Your task to perform on an android device: Search for a sofa on article.com Image 0: 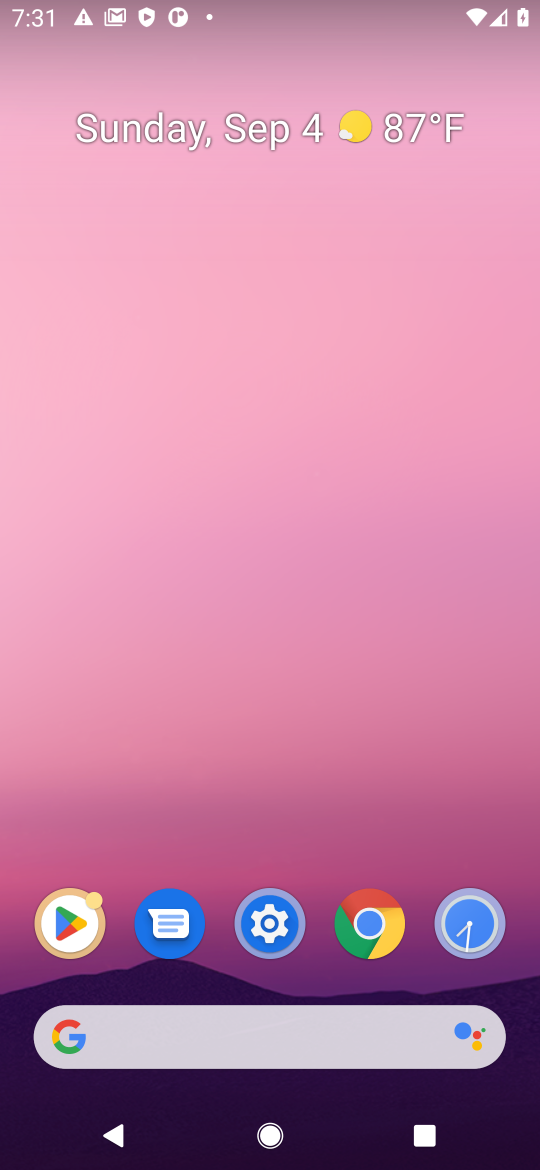
Step 0: press home button
Your task to perform on an android device: Search for a sofa on article.com Image 1: 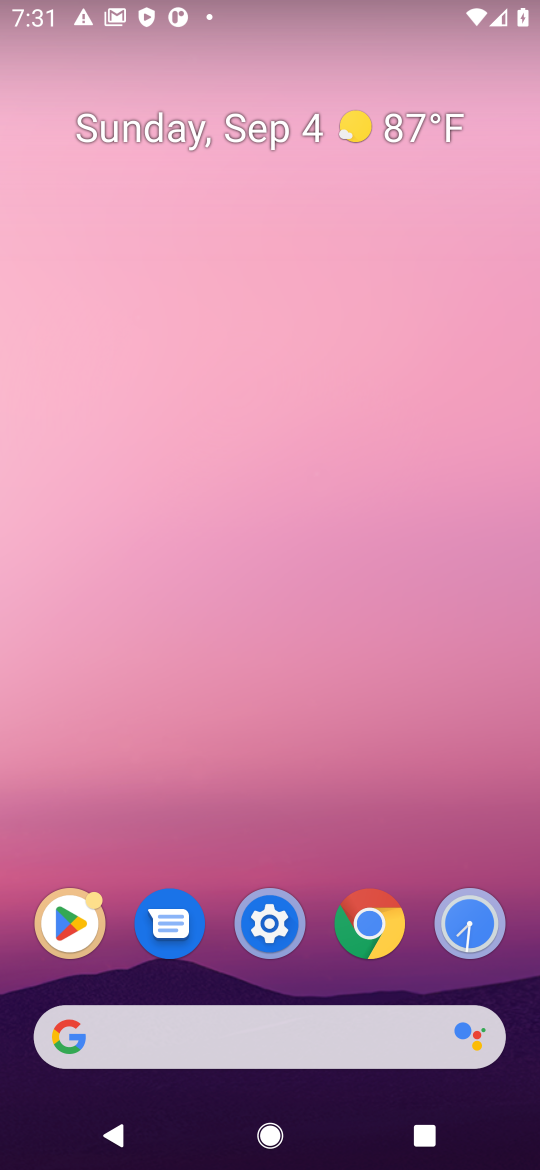
Step 1: click (351, 1015)
Your task to perform on an android device: Search for a sofa on article.com Image 2: 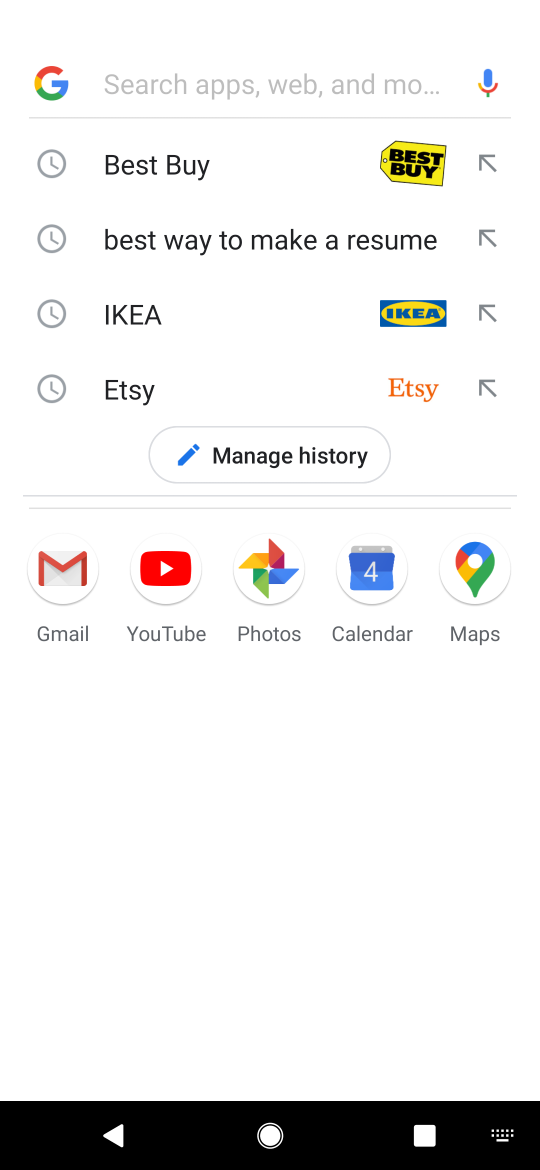
Step 2: press enter
Your task to perform on an android device: Search for a sofa on article.com Image 3: 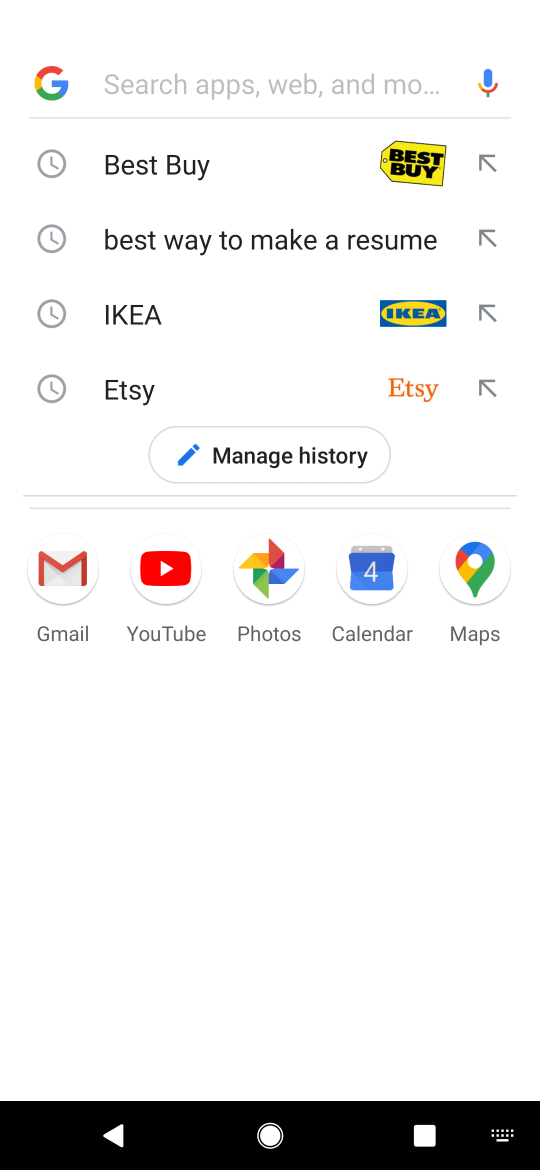
Step 3: type "article.com"
Your task to perform on an android device: Search for a sofa on article.com Image 4: 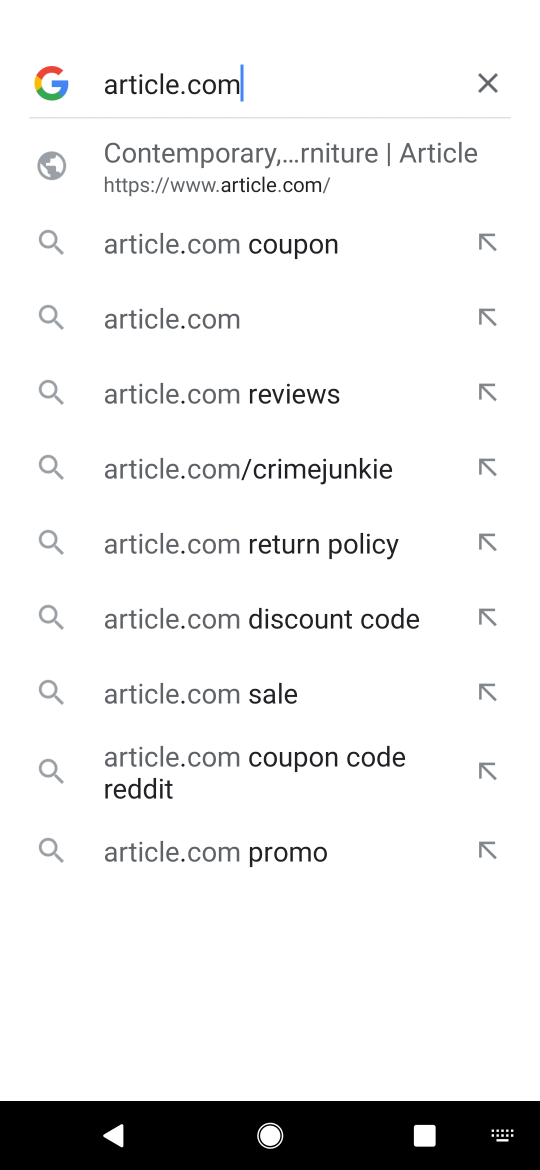
Step 4: click (263, 166)
Your task to perform on an android device: Search for a sofa on article.com Image 5: 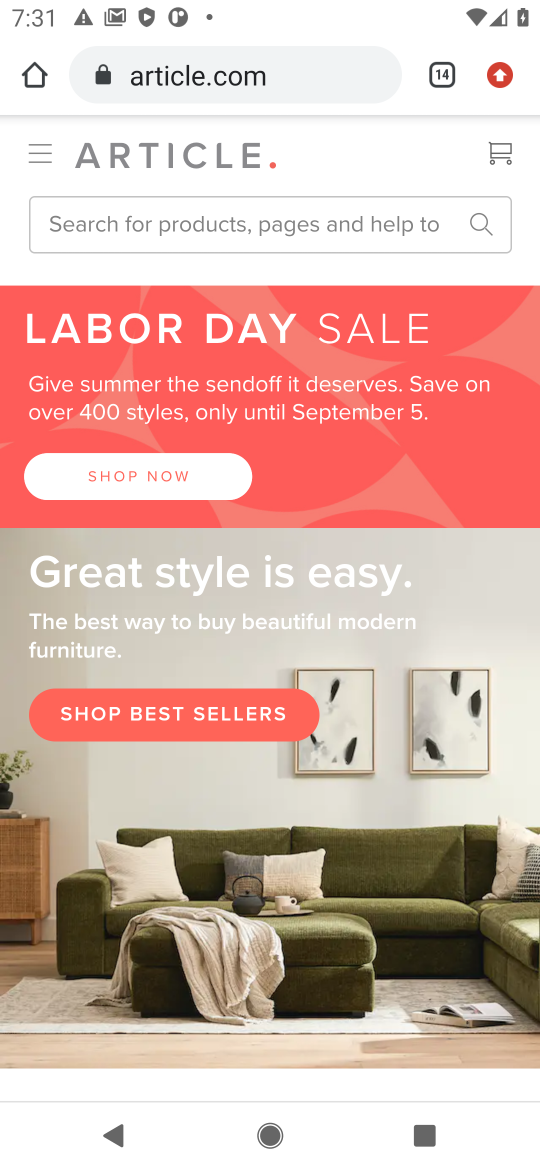
Step 5: click (369, 222)
Your task to perform on an android device: Search for a sofa on article.com Image 6: 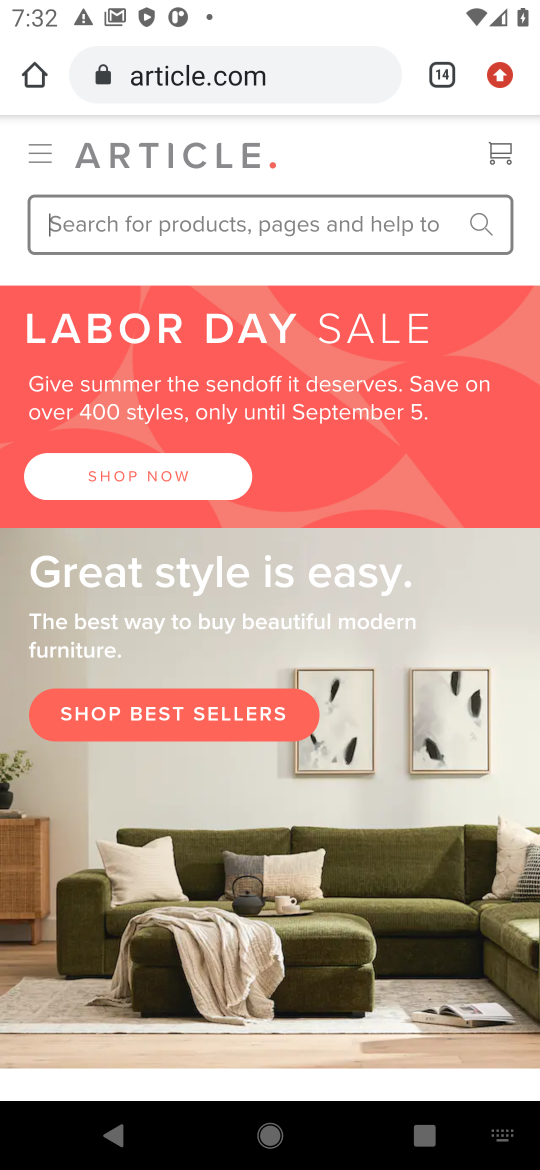
Step 6: press enter
Your task to perform on an android device: Search for a sofa on article.com Image 7: 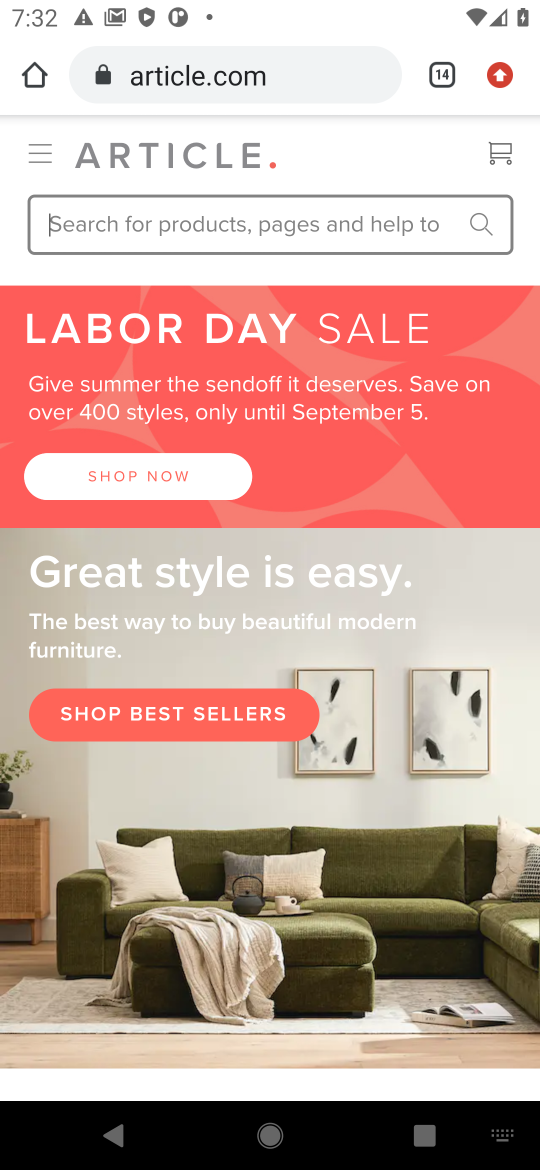
Step 7: type "sofa"
Your task to perform on an android device: Search for a sofa on article.com Image 8: 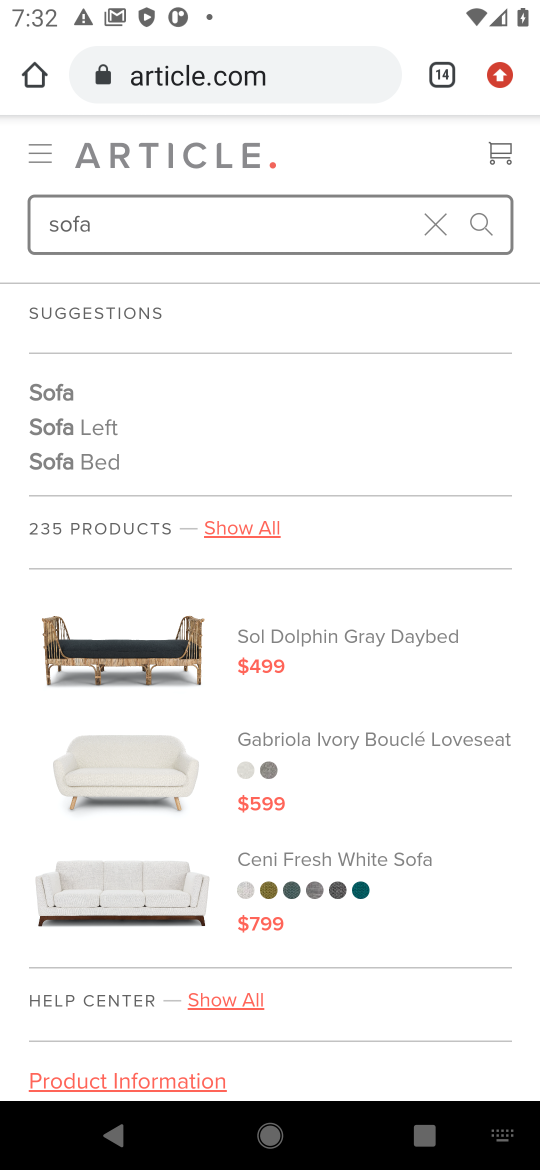
Step 8: task complete